Your task to perform on an android device: Go to Wikipedia Image 0: 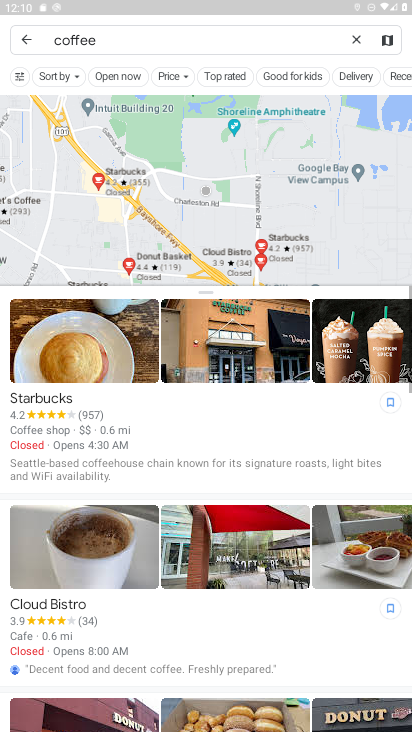
Step 0: press home button
Your task to perform on an android device: Go to Wikipedia Image 1: 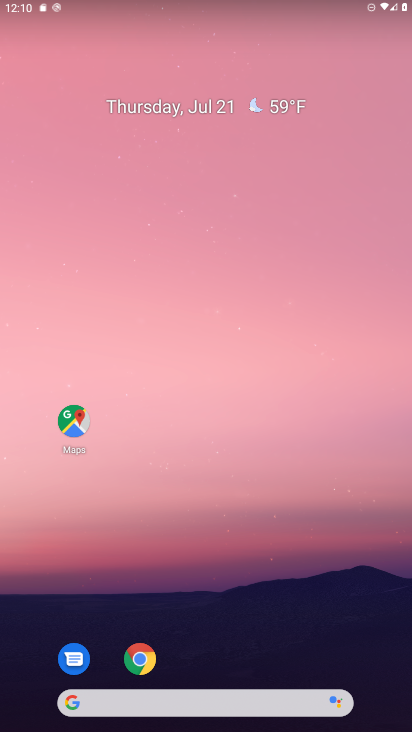
Step 1: click (131, 656)
Your task to perform on an android device: Go to Wikipedia Image 2: 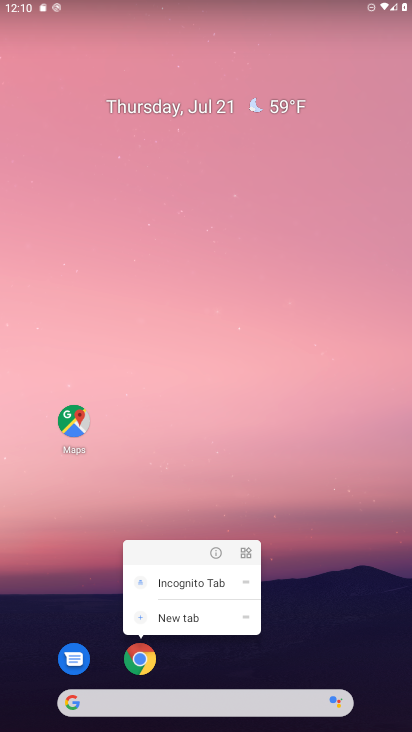
Step 2: click (136, 662)
Your task to perform on an android device: Go to Wikipedia Image 3: 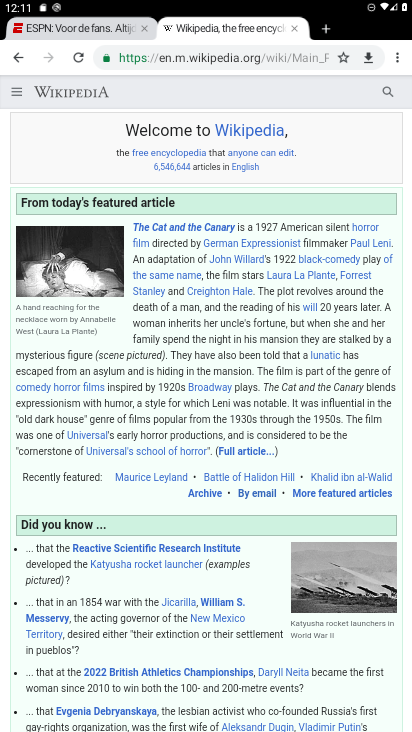
Step 3: task complete